Your task to perform on an android device: empty trash in google photos Image 0: 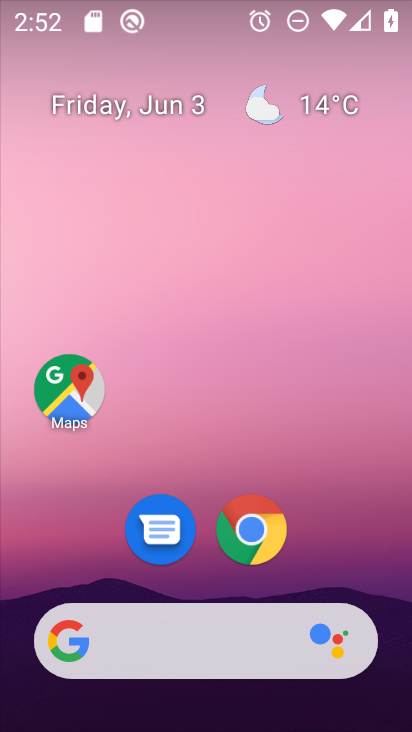
Step 0: drag from (348, 558) to (338, 236)
Your task to perform on an android device: empty trash in google photos Image 1: 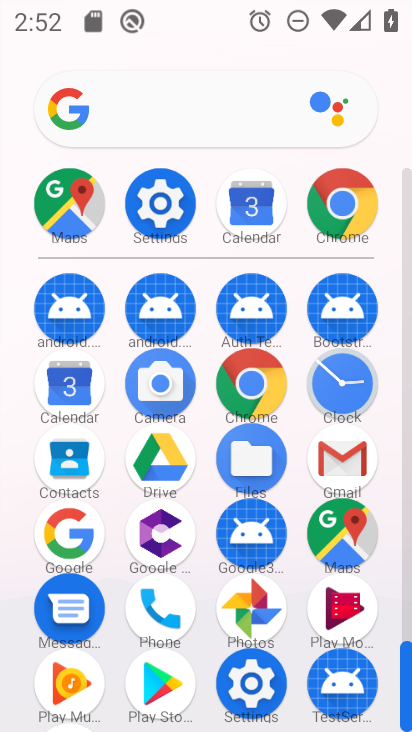
Step 1: click (261, 609)
Your task to perform on an android device: empty trash in google photos Image 2: 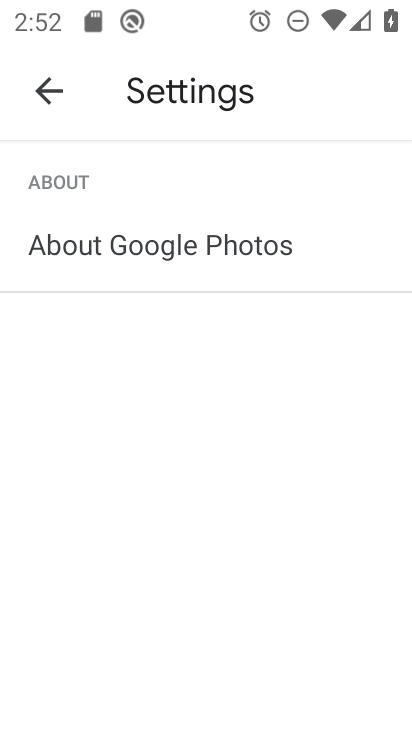
Step 2: press back button
Your task to perform on an android device: empty trash in google photos Image 3: 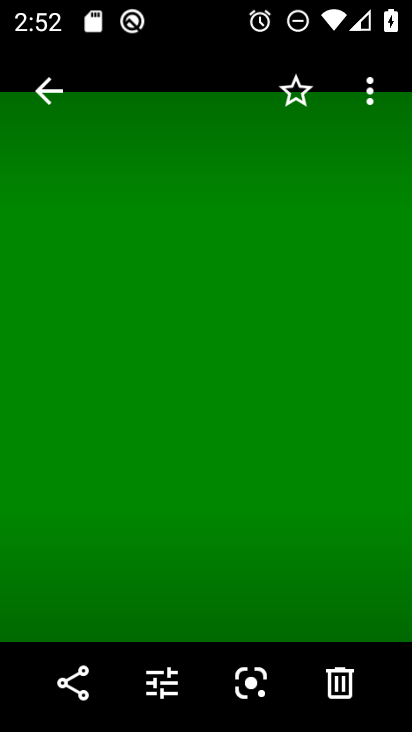
Step 3: press back button
Your task to perform on an android device: empty trash in google photos Image 4: 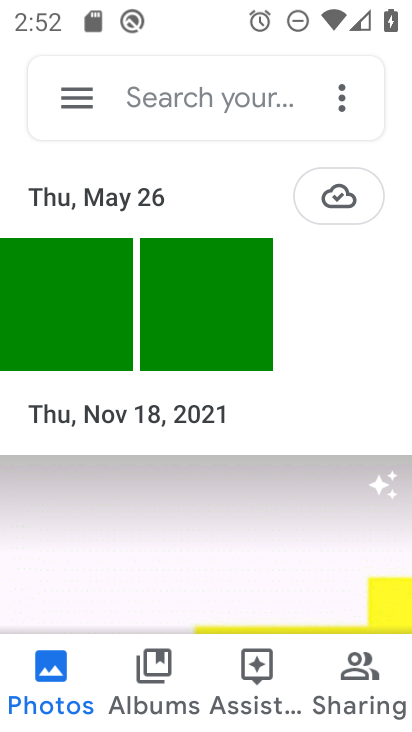
Step 4: click (342, 105)
Your task to perform on an android device: empty trash in google photos Image 5: 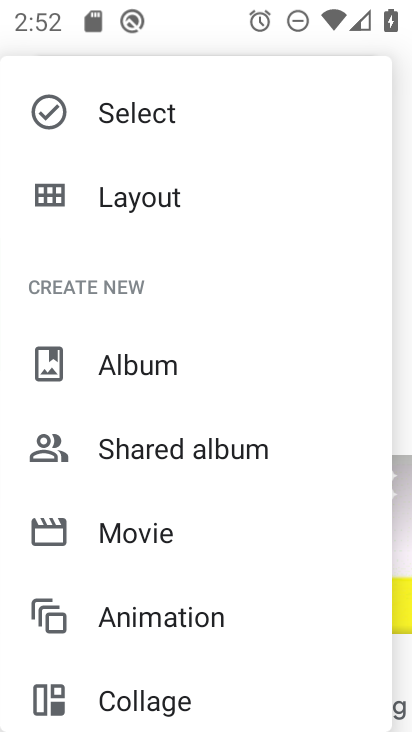
Step 5: task complete